Your task to perform on an android device: turn off priority inbox in the gmail app Image 0: 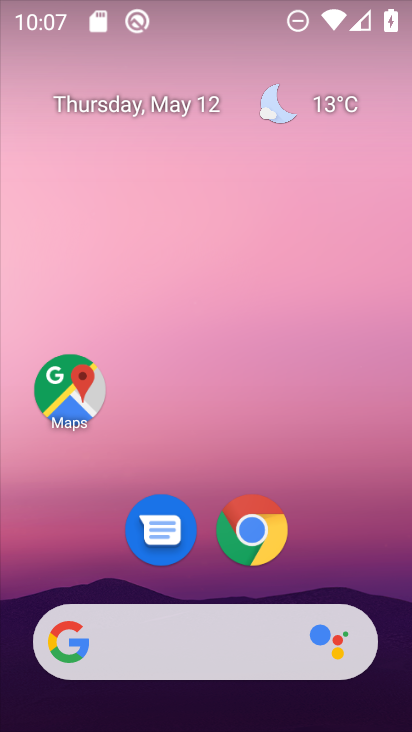
Step 0: drag from (304, 486) to (297, 218)
Your task to perform on an android device: turn off priority inbox in the gmail app Image 1: 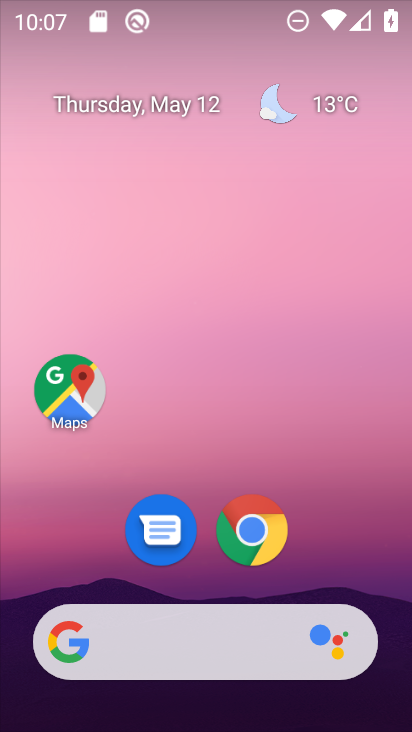
Step 1: drag from (292, 455) to (291, 83)
Your task to perform on an android device: turn off priority inbox in the gmail app Image 2: 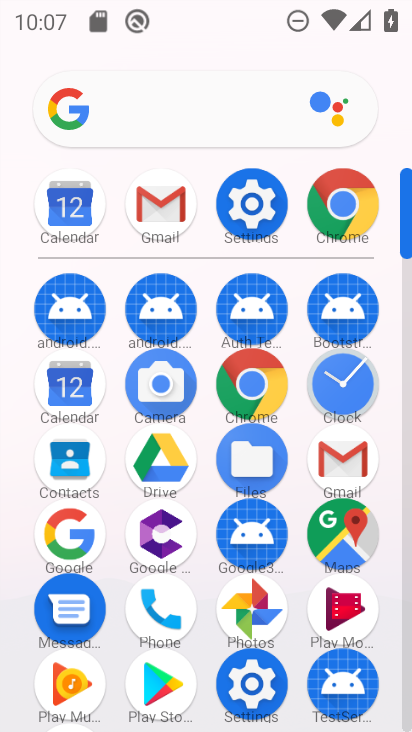
Step 2: click (141, 202)
Your task to perform on an android device: turn off priority inbox in the gmail app Image 3: 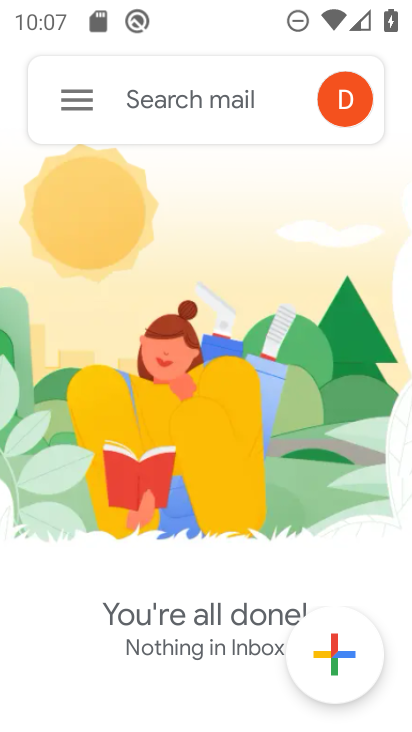
Step 3: click (82, 87)
Your task to perform on an android device: turn off priority inbox in the gmail app Image 4: 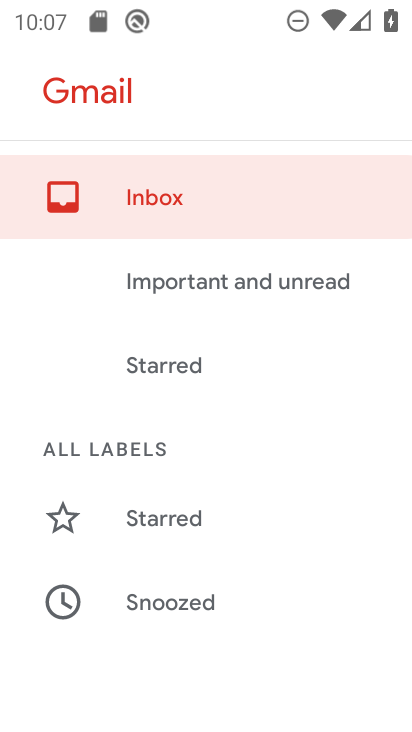
Step 4: drag from (264, 520) to (314, 214)
Your task to perform on an android device: turn off priority inbox in the gmail app Image 5: 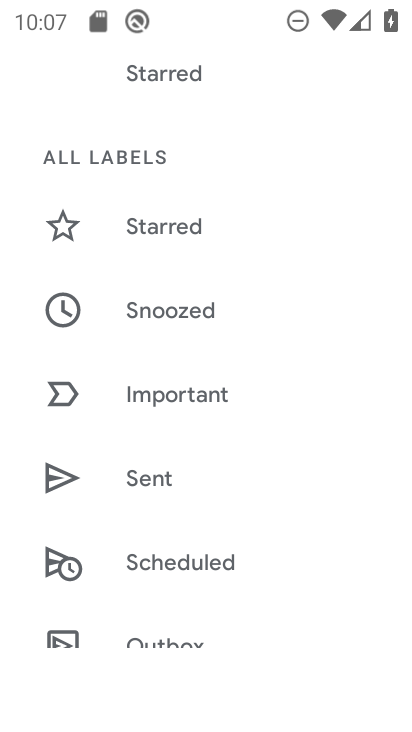
Step 5: drag from (296, 536) to (292, 166)
Your task to perform on an android device: turn off priority inbox in the gmail app Image 6: 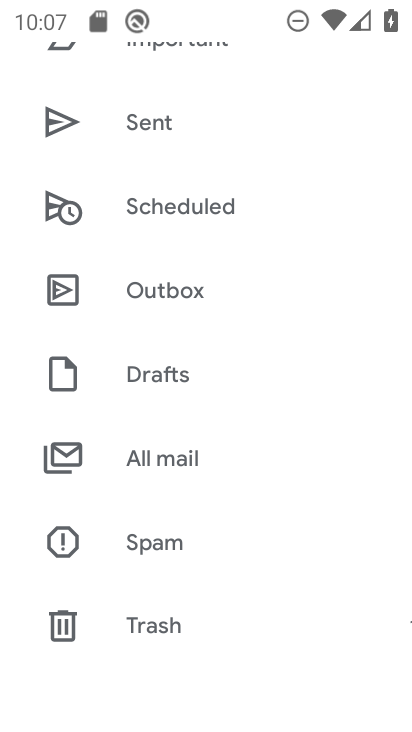
Step 6: drag from (213, 531) to (210, 159)
Your task to perform on an android device: turn off priority inbox in the gmail app Image 7: 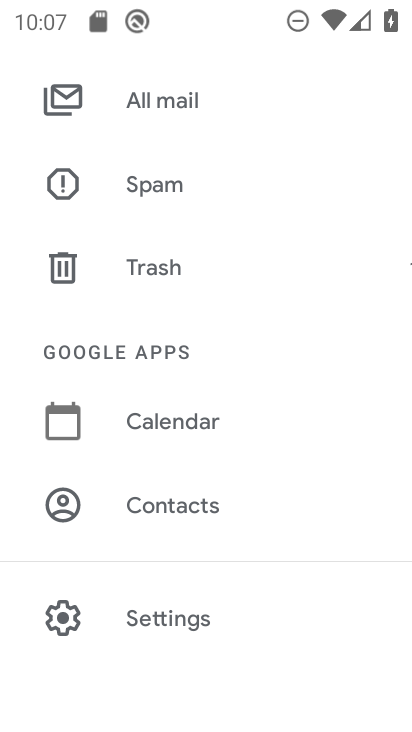
Step 7: click (199, 603)
Your task to perform on an android device: turn off priority inbox in the gmail app Image 8: 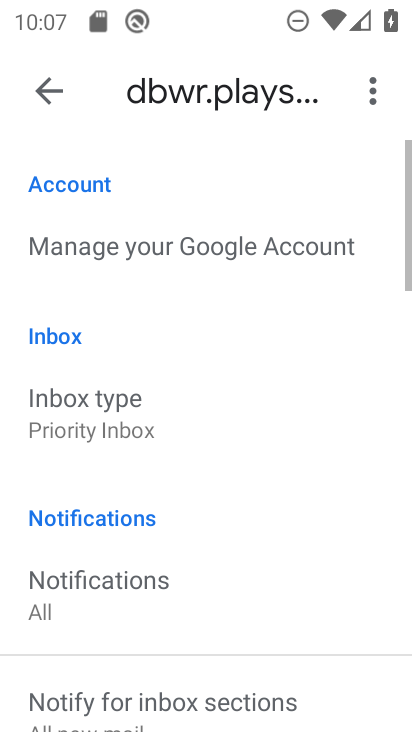
Step 8: task complete